Your task to perform on an android device: Set the phone to "Do not disturb". Image 0: 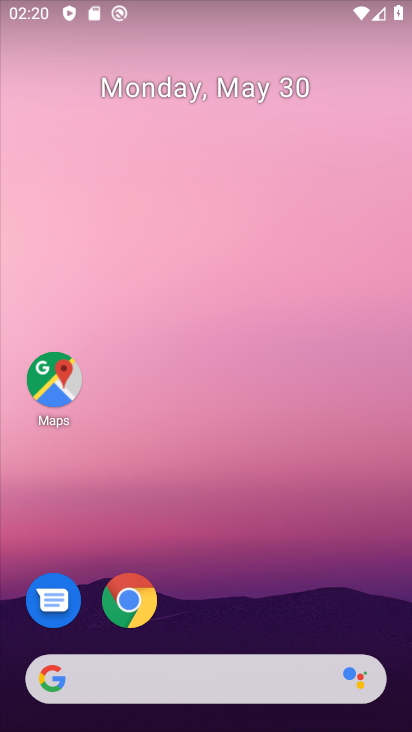
Step 0: drag from (228, 617) to (302, 8)
Your task to perform on an android device: Set the phone to "Do not disturb". Image 1: 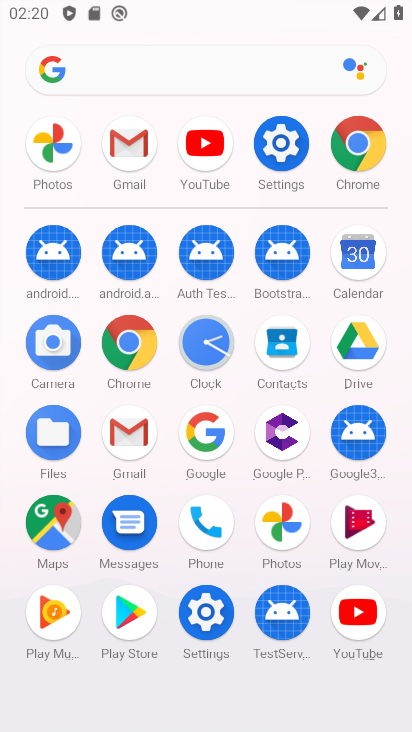
Step 1: click (289, 158)
Your task to perform on an android device: Set the phone to "Do not disturb". Image 2: 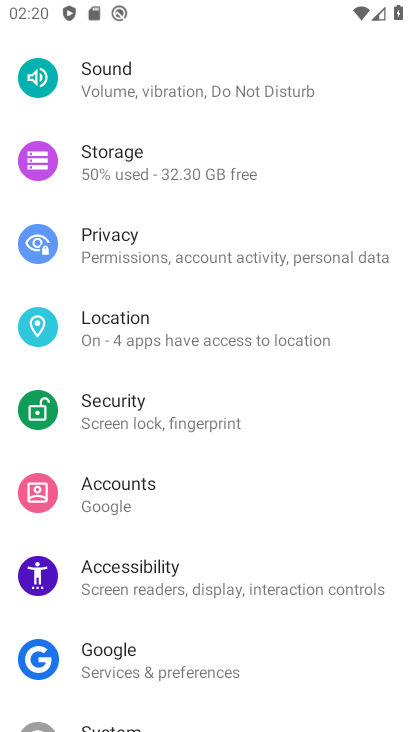
Step 2: click (211, 86)
Your task to perform on an android device: Set the phone to "Do not disturb". Image 3: 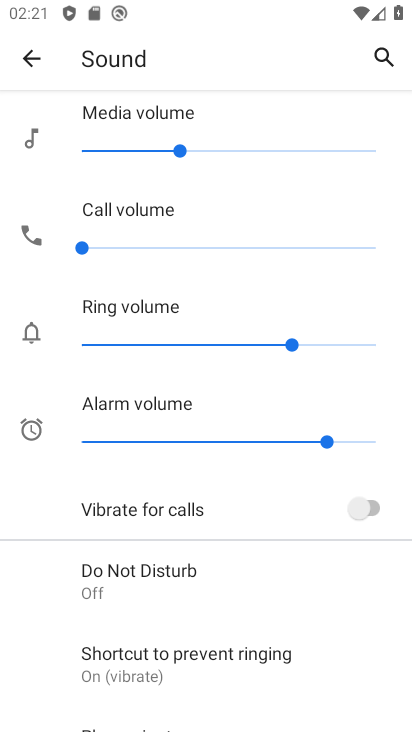
Step 3: task complete